Your task to perform on an android device: turn off location Image 0: 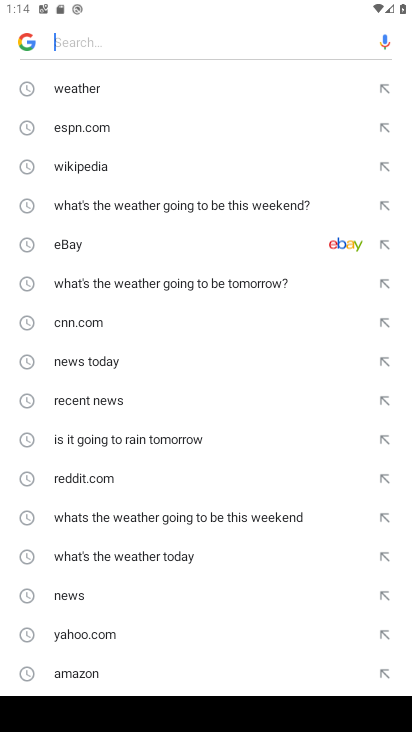
Step 0: press home button
Your task to perform on an android device: turn off location Image 1: 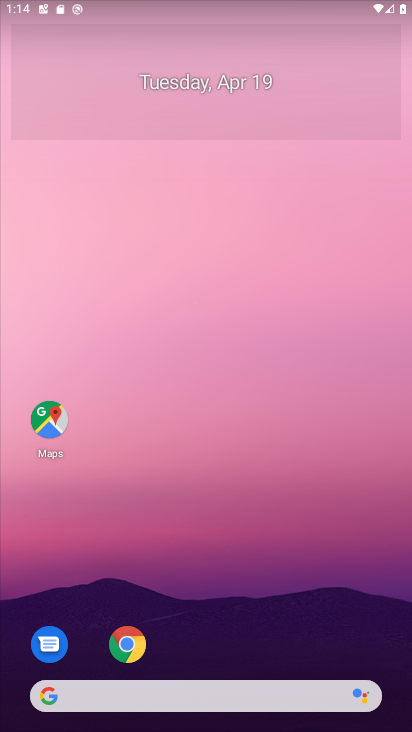
Step 1: drag from (193, 607) to (264, 66)
Your task to perform on an android device: turn off location Image 2: 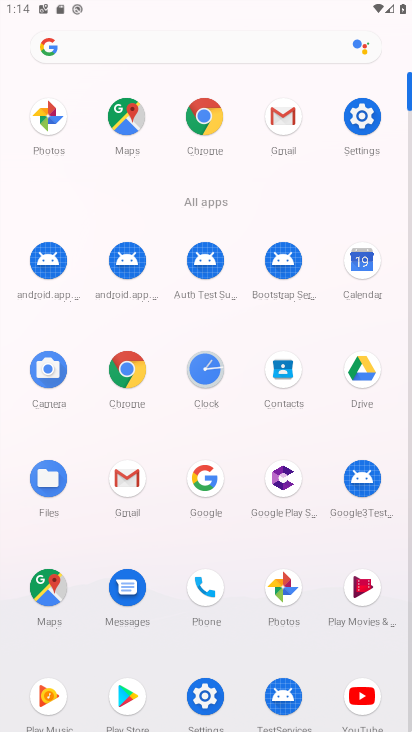
Step 2: click (363, 131)
Your task to perform on an android device: turn off location Image 3: 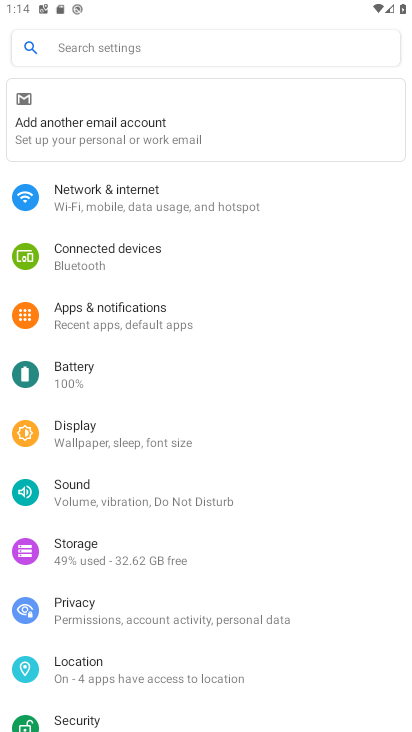
Step 3: click (82, 662)
Your task to perform on an android device: turn off location Image 4: 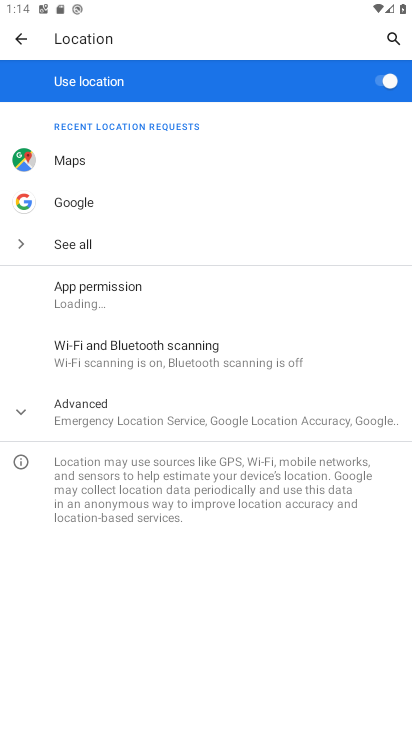
Step 4: click (374, 78)
Your task to perform on an android device: turn off location Image 5: 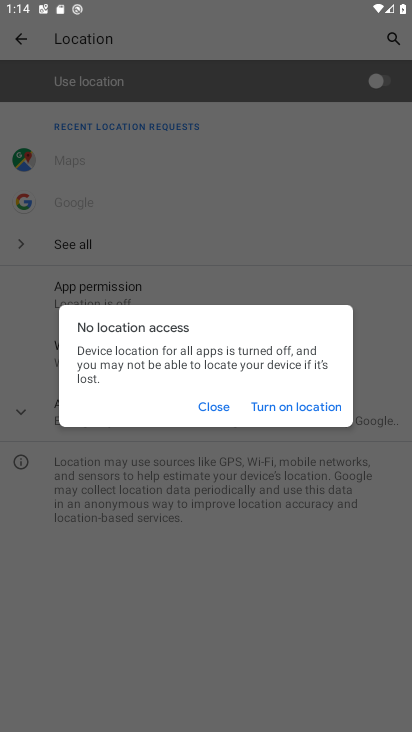
Step 5: click (207, 396)
Your task to perform on an android device: turn off location Image 6: 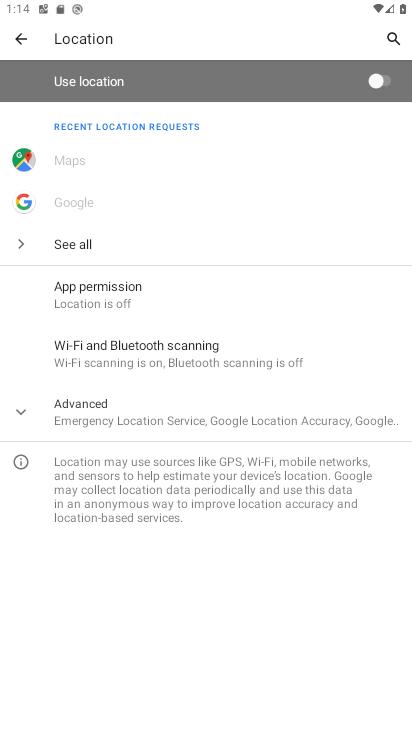
Step 6: task complete